Your task to perform on an android device: turn notification dots off Image 0: 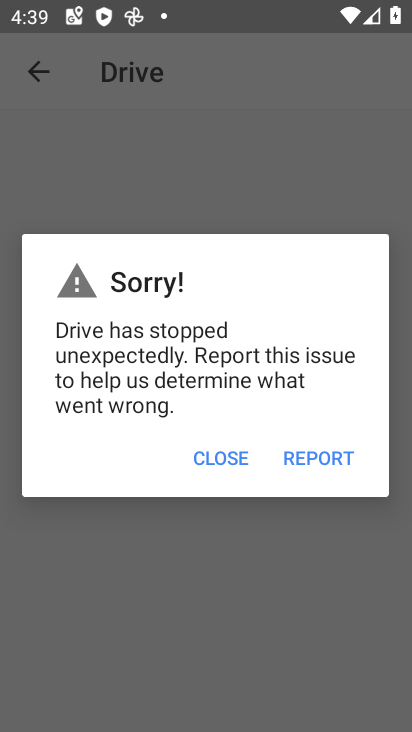
Step 0: press home button
Your task to perform on an android device: turn notification dots off Image 1: 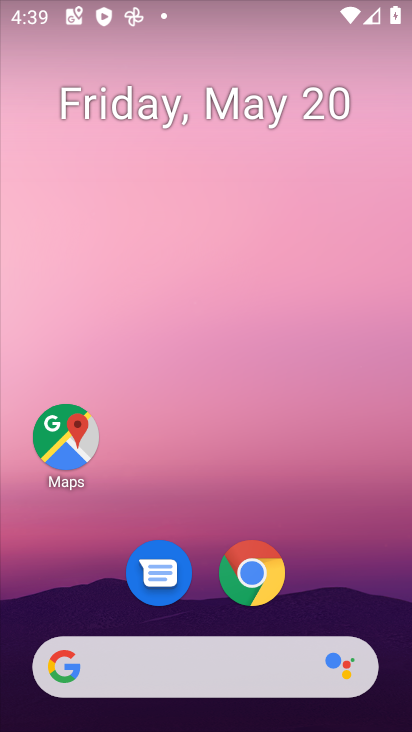
Step 1: drag from (400, 633) to (268, 92)
Your task to perform on an android device: turn notification dots off Image 2: 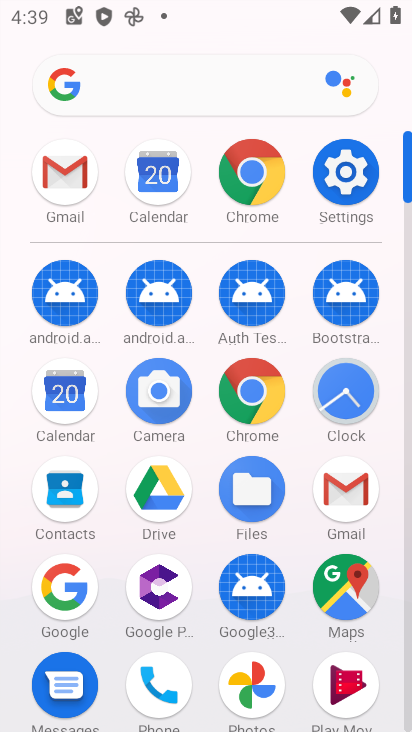
Step 2: click (406, 708)
Your task to perform on an android device: turn notification dots off Image 3: 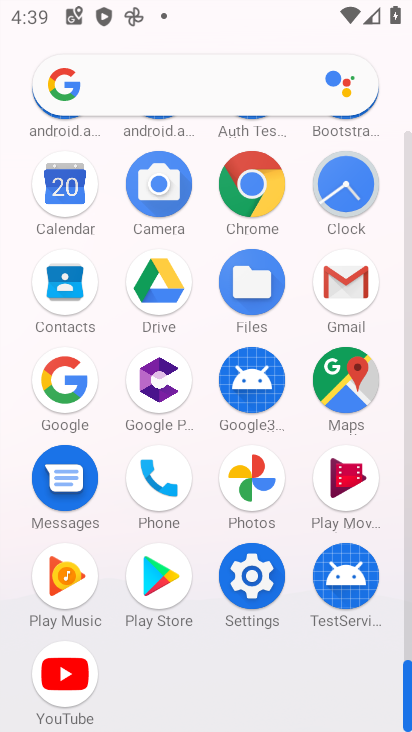
Step 3: click (254, 577)
Your task to perform on an android device: turn notification dots off Image 4: 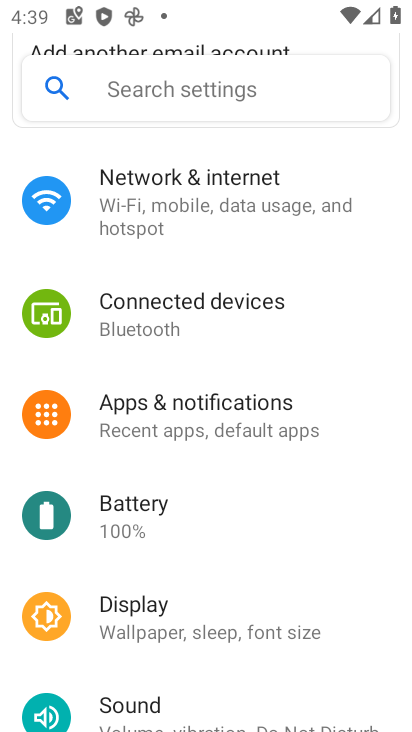
Step 4: click (167, 412)
Your task to perform on an android device: turn notification dots off Image 5: 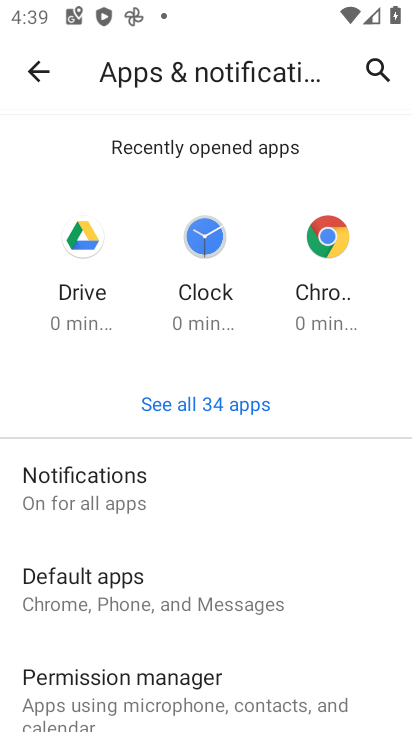
Step 5: drag from (320, 661) to (278, 262)
Your task to perform on an android device: turn notification dots off Image 6: 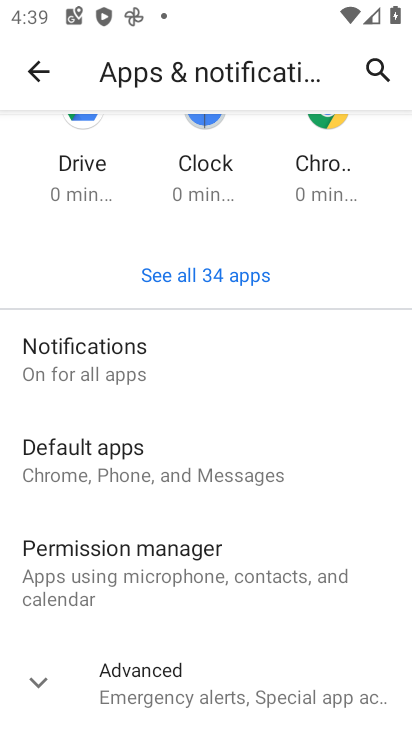
Step 6: click (115, 353)
Your task to perform on an android device: turn notification dots off Image 7: 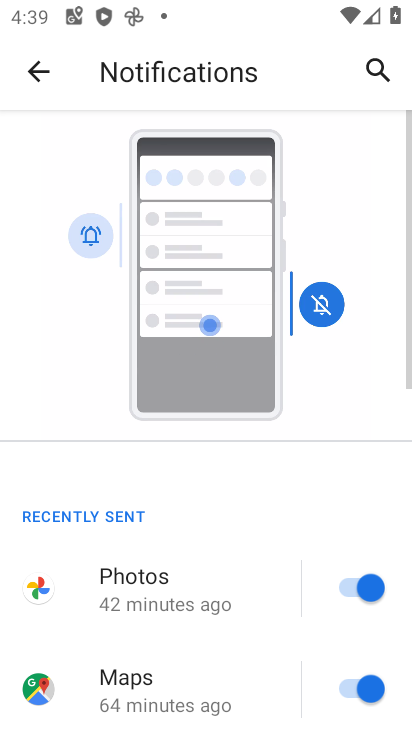
Step 7: drag from (329, 665) to (252, 120)
Your task to perform on an android device: turn notification dots off Image 8: 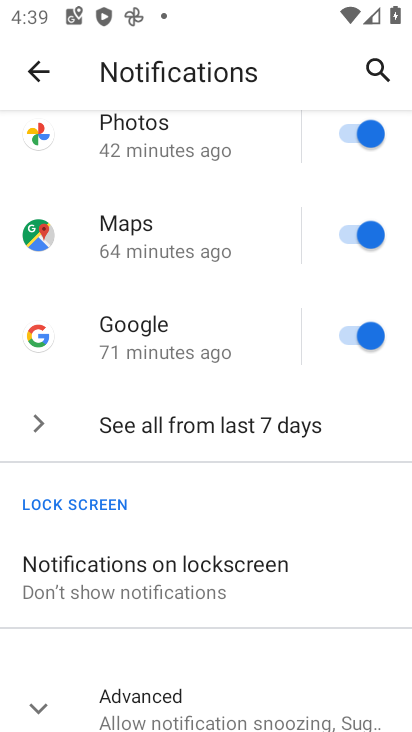
Step 8: click (38, 705)
Your task to perform on an android device: turn notification dots off Image 9: 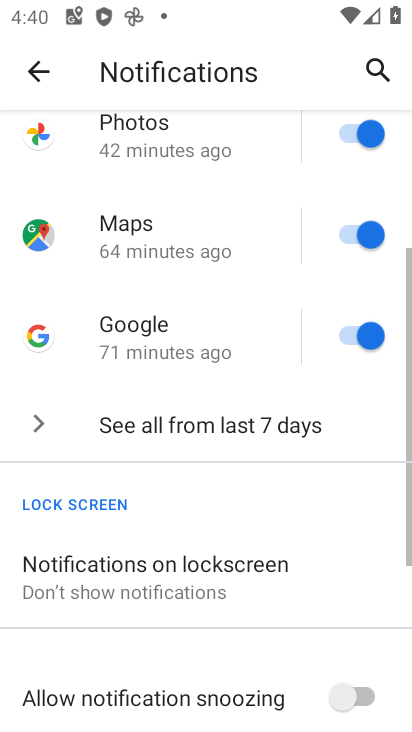
Step 9: task complete